Your task to perform on an android device: turn on airplane mode Image 0: 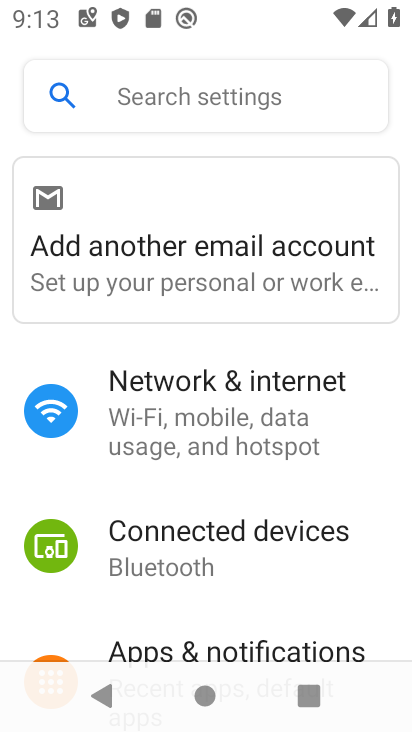
Step 0: press home button
Your task to perform on an android device: turn on airplane mode Image 1: 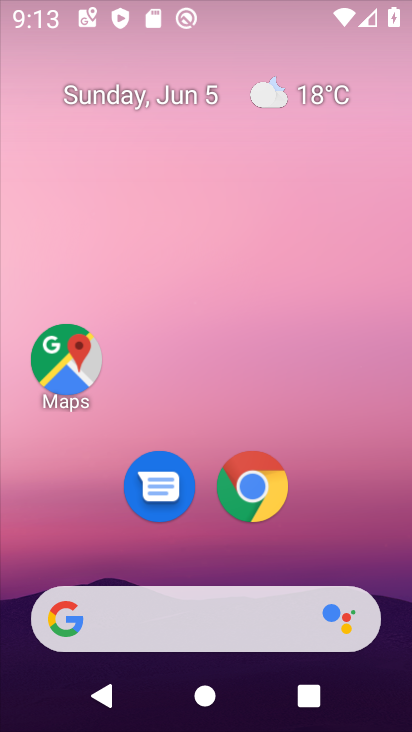
Step 1: drag from (327, 516) to (331, 96)
Your task to perform on an android device: turn on airplane mode Image 2: 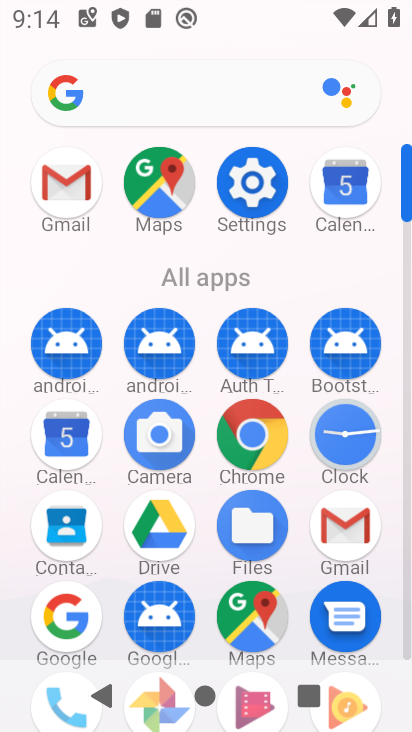
Step 2: click (265, 187)
Your task to perform on an android device: turn on airplane mode Image 3: 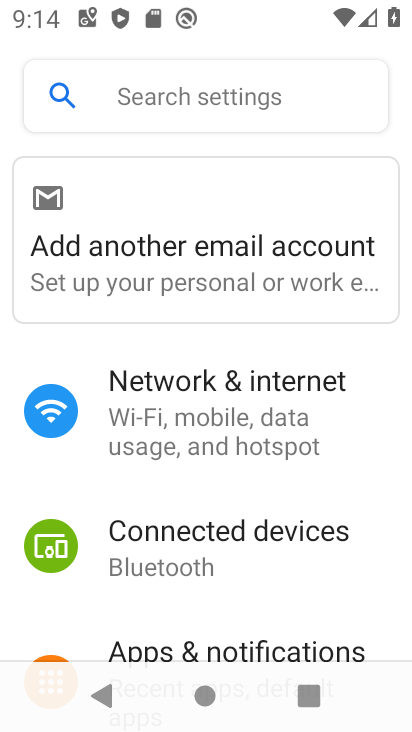
Step 3: click (291, 396)
Your task to perform on an android device: turn on airplane mode Image 4: 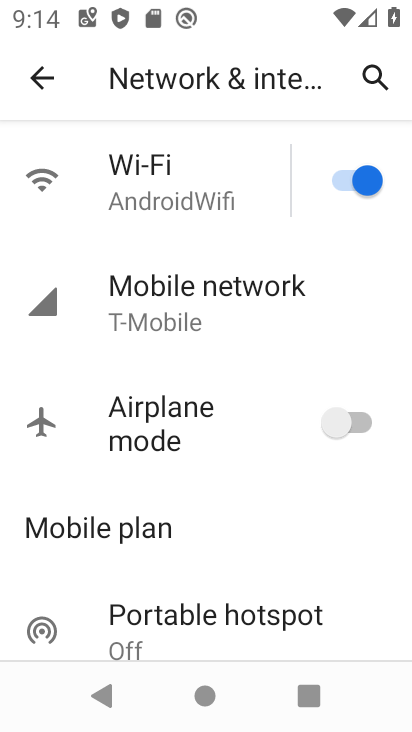
Step 4: task complete